Your task to perform on an android device: open a new tab in the chrome app Image 0: 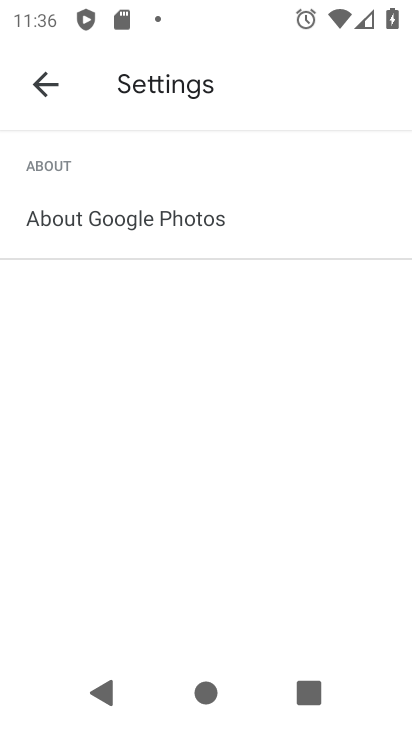
Step 0: press home button
Your task to perform on an android device: open a new tab in the chrome app Image 1: 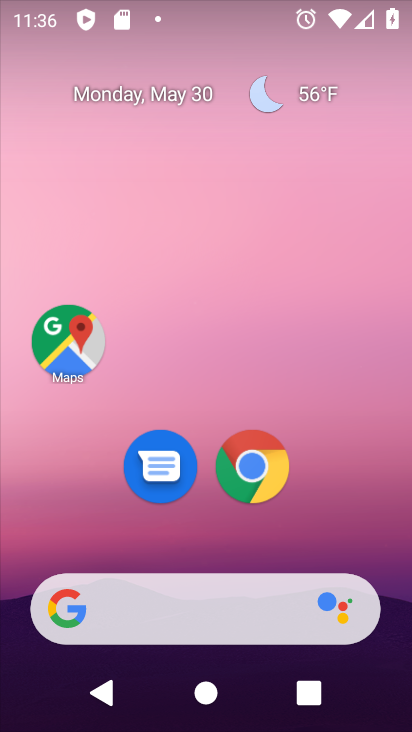
Step 1: click (251, 484)
Your task to perform on an android device: open a new tab in the chrome app Image 2: 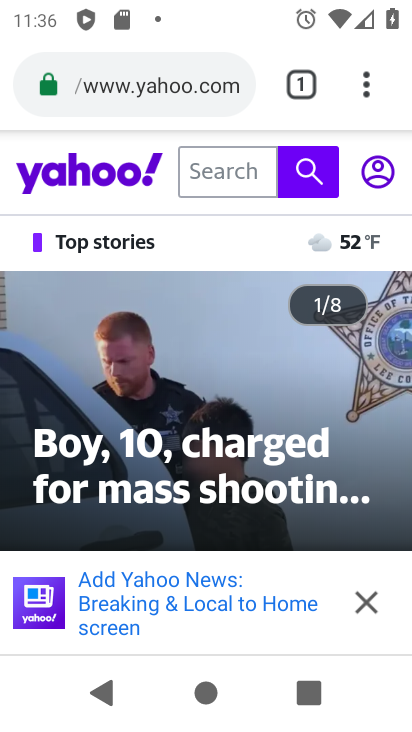
Step 2: task complete